Your task to perform on an android device: turn on priority inbox in the gmail app Image 0: 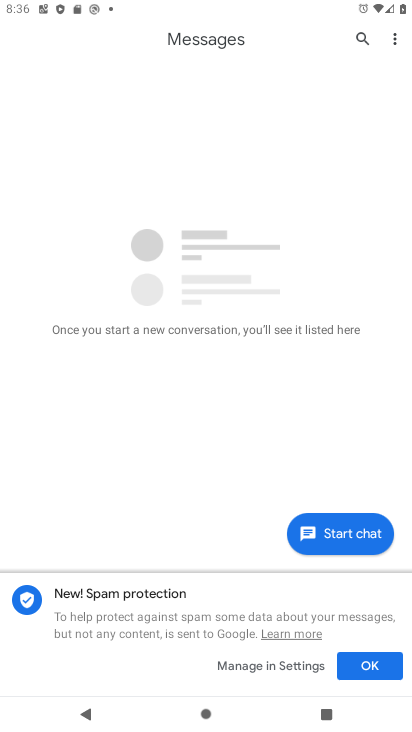
Step 0: press home button
Your task to perform on an android device: turn on priority inbox in the gmail app Image 1: 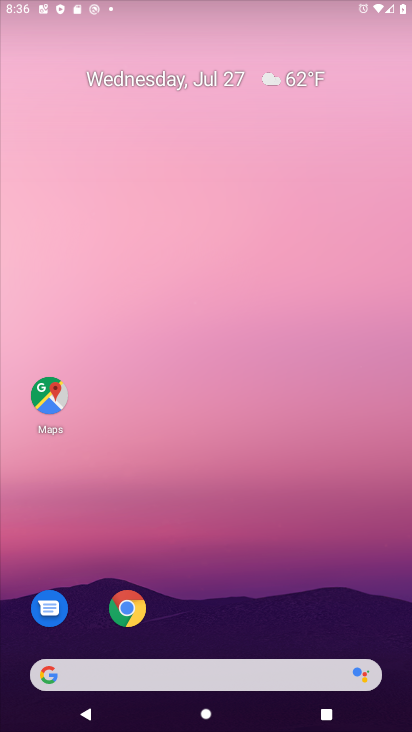
Step 1: drag from (235, 486) to (293, 119)
Your task to perform on an android device: turn on priority inbox in the gmail app Image 2: 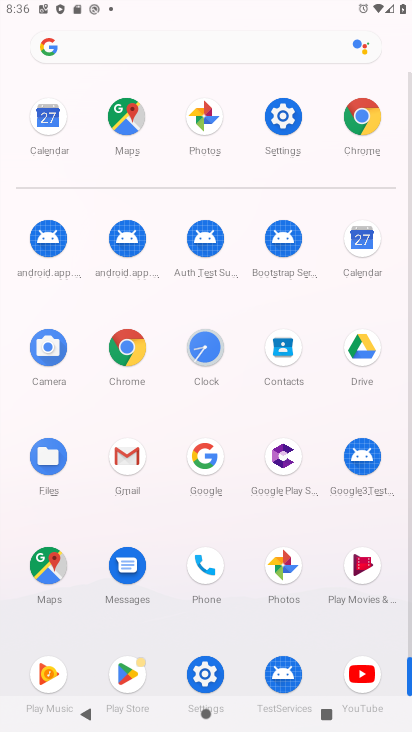
Step 2: click (138, 454)
Your task to perform on an android device: turn on priority inbox in the gmail app Image 3: 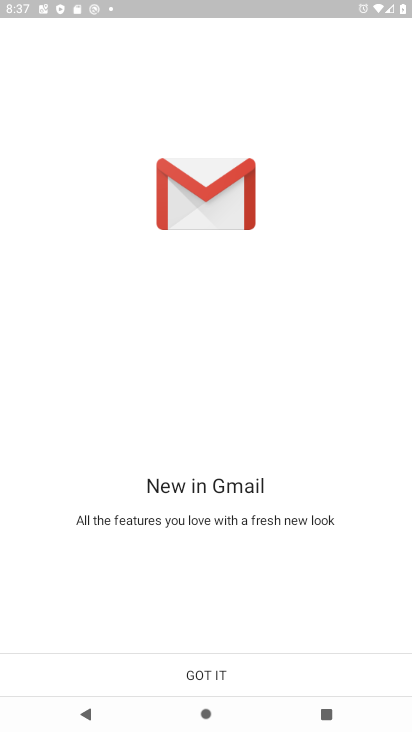
Step 3: click (193, 664)
Your task to perform on an android device: turn on priority inbox in the gmail app Image 4: 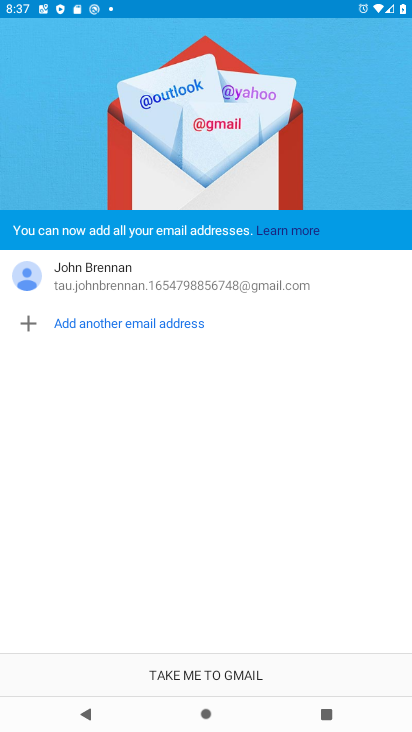
Step 4: click (193, 664)
Your task to perform on an android device: turn on priority inbox in the gmail app Image 5: 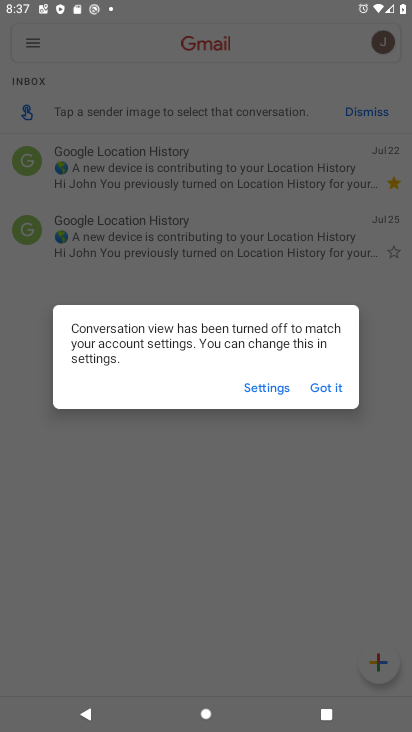
Step 5: click (323, 390)
Your task to perform on an android device: turn on priority inbox in the gmail app Image 6: 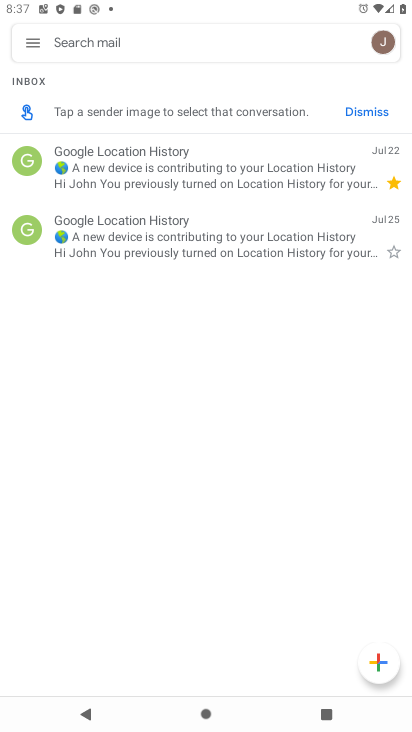
Step 6: click (41, 40)
Your task to perform on an android device: turn on priority inbox in the gmail app Image 7: 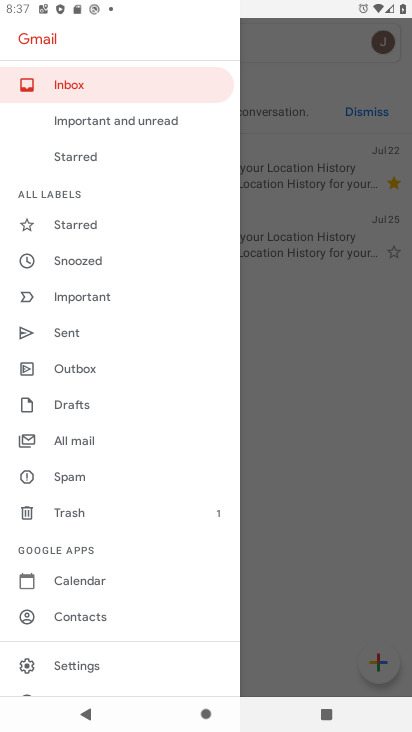
Step 7: click (73, 666)
Your task to perform on an android device: turn on priority inbox in the gmail app Image 8: 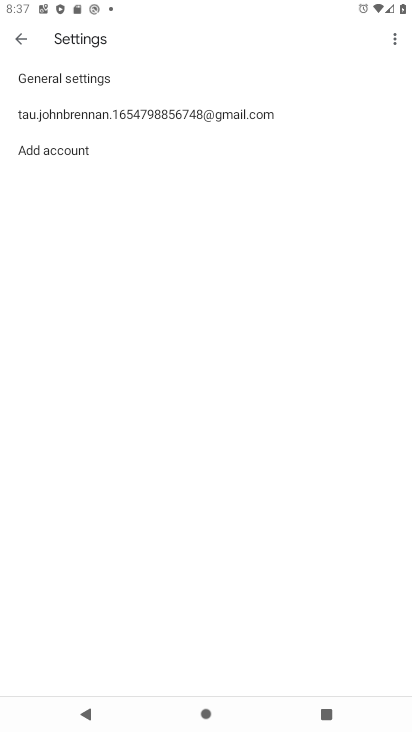
Step 8: task complete